Your task to perform on an android device: Search for seafood restaurants on Google Maps Image 0: 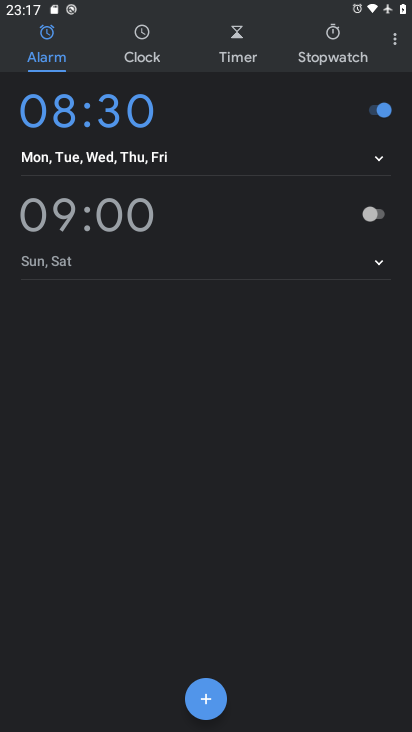
Step 0: press home button
Your task to perform on an android device: Search for seafood restaurants on Google Maps Image 1: 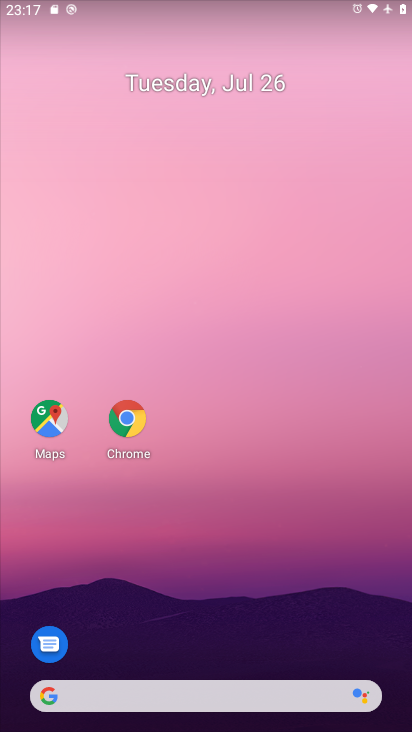
Step 1: click (52, 429)
Your task to perform on an android device: Search for seafood restaurants on Google Maps Image 2: 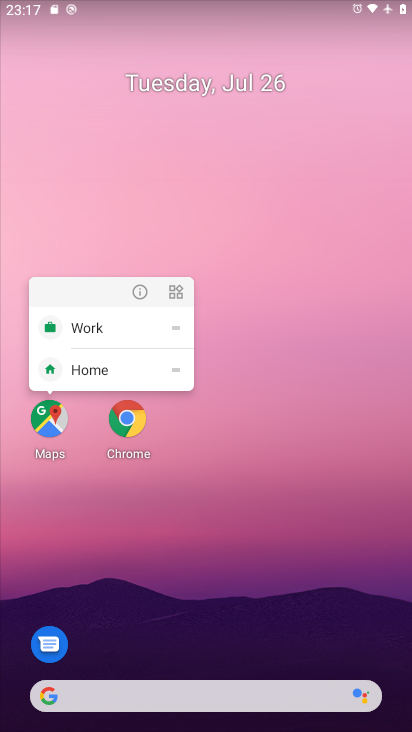
Step 2: click (52, 429)
Your task to perform on an android device: Search for seafood restaurants on Google Maps Image 3: 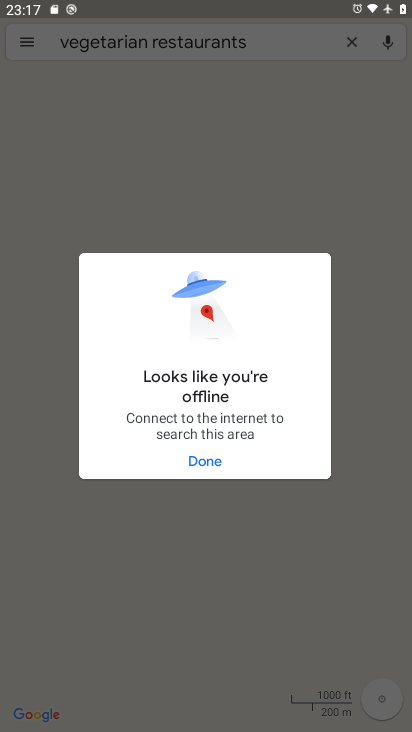
Step 3: click (204, 470)
Your task to perform on an android device: Search for seafood restaurants on Google Maps Image 4: 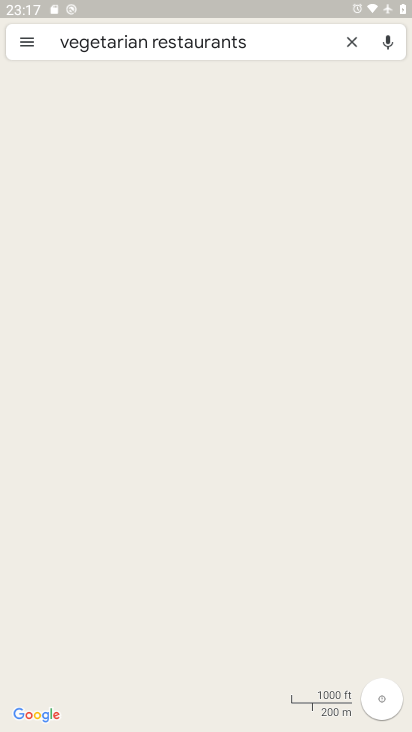
Step 4: click (353, 42)
Your task to perform on an android device: Search for seafood restaurants on Google Maps Image 5: 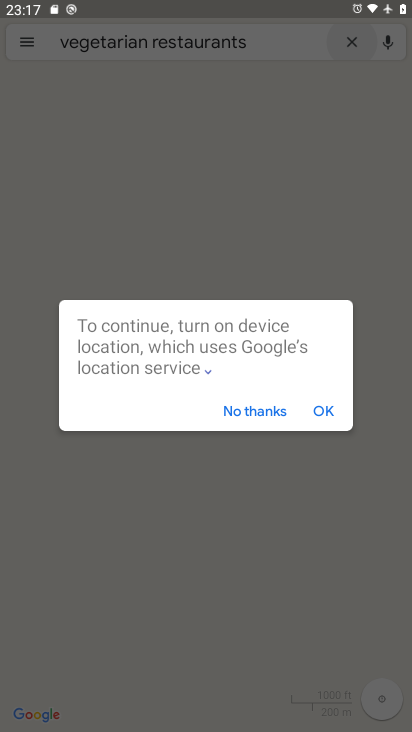
Step 5: click (350, 42)
Your task to perform on an android device: Search for seafood restaurants on Google Maps Image 6: 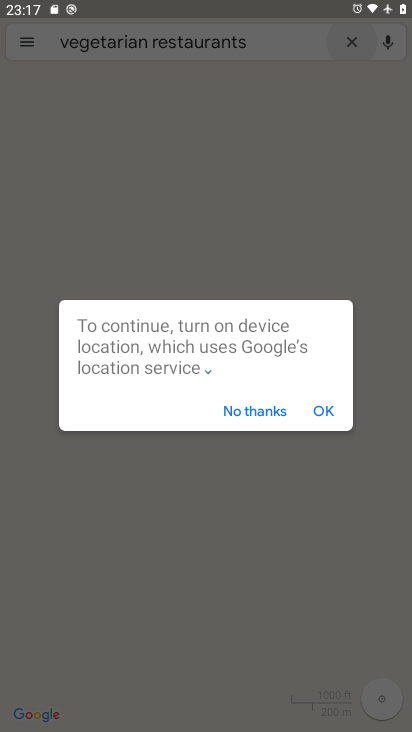
Step 6: click (237, 391)
Your task to perform on an android device: Search for seafood restaurants on Google Maps Image 7: 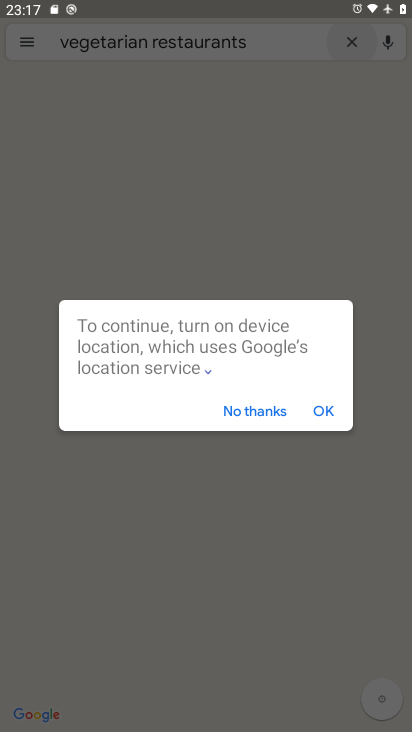
Step 7: click (237, 412)
Your task to perform on an android device: Search for seafood restaurants on Google Maps Image 8: 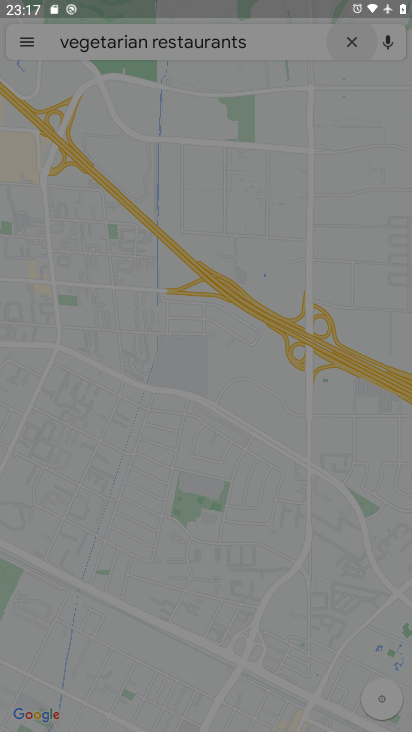
Step 8: click (348, 49)
Your task to perform on an android device: Search for seafood restaurants on Google Maps Image 9: 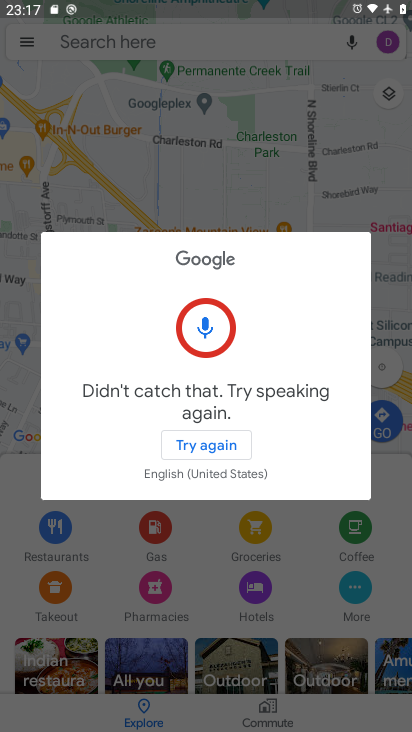
Step 9: click (193, 37)
Your task to perform on an android device: Search for seafood restaurants on Google Maps Image 10: 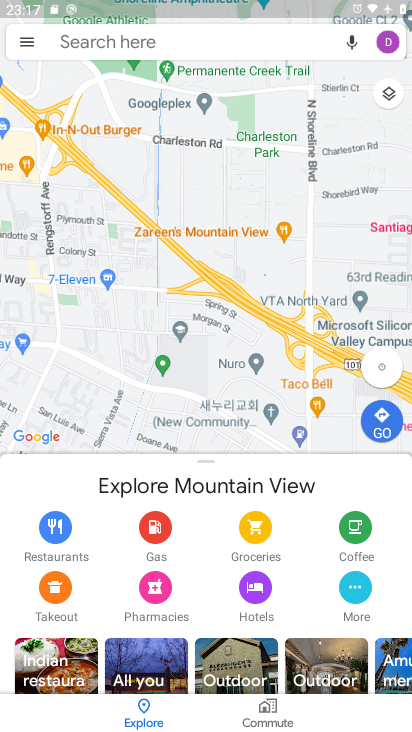
Step 10: click (193, 37)
Your task to perform on an android device: Search for seafood restaurants on Google Maps Image 11: 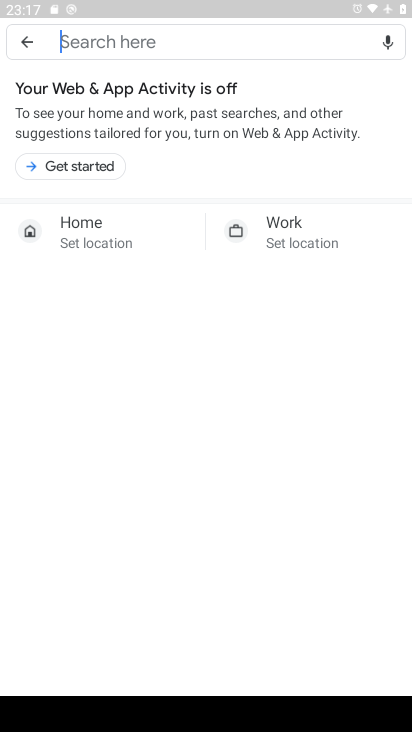
Step 11: type "seafood restaurant "
Your task to perform on an android device: Search for seafood restaurants on Google Maps Image 12: 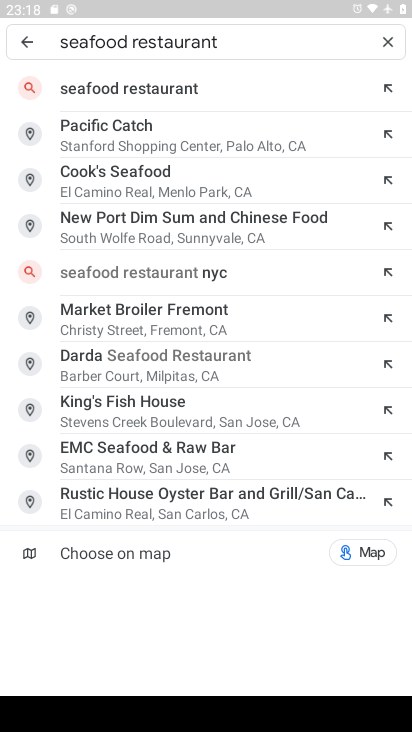
Step 12: click (179, 90)
Your task to perform on an android device: Search for seafood restaurants on Google Maps Image 13: 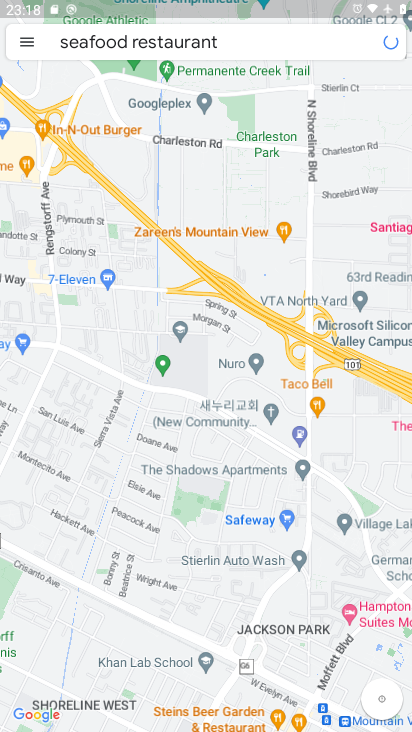
Step 13: task complete